Your task to perform on an android device: How much does a 3 bedroom apartment rent for in Denver? Image 0: 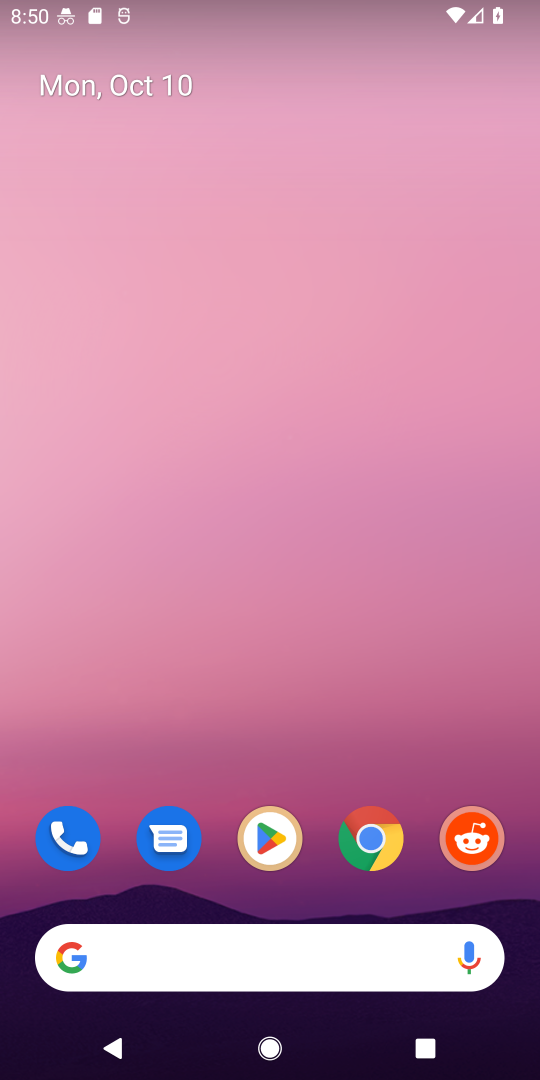
Step 0: click (372, 839)
Your task to perform on an android device: How much does a 3 bedroom apartment rent for in Denver? Image 1: 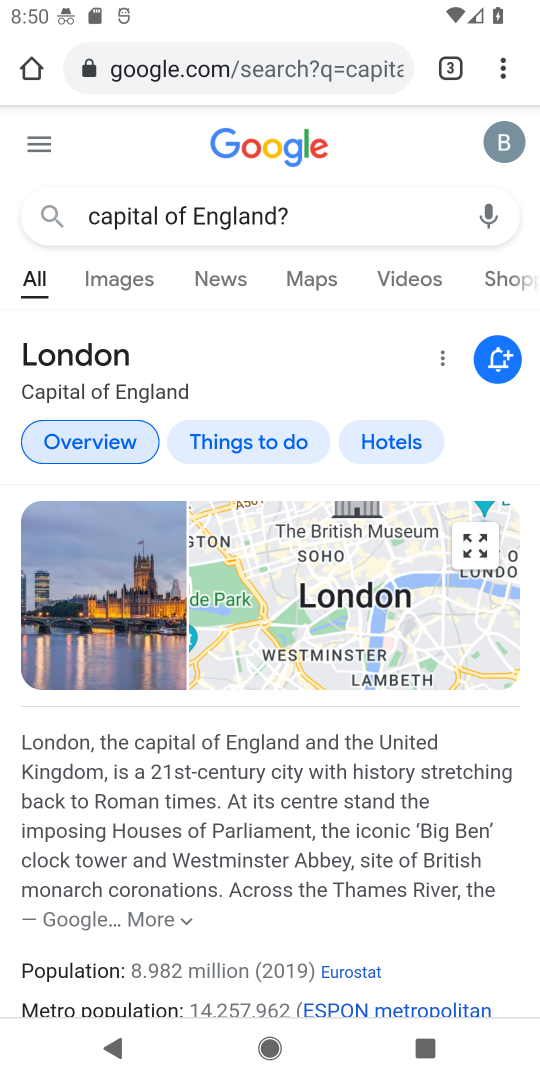
Step 1: click (246, 45)
Your task to perform on an android device: How much does a 3 bedroom apartment rent for in Denver? Image 2: 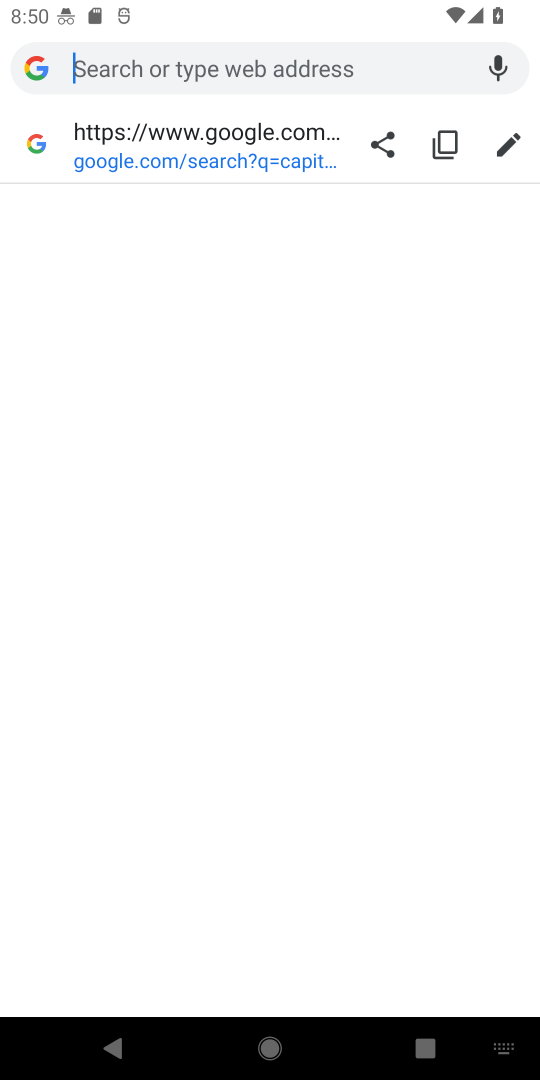
Step 2: type "How much does a 3 bedroom apartment rent for in Denver?"
Your task to perform on an android device: How much does a 3 bedroom apartment rent for in Denver? Image 3: 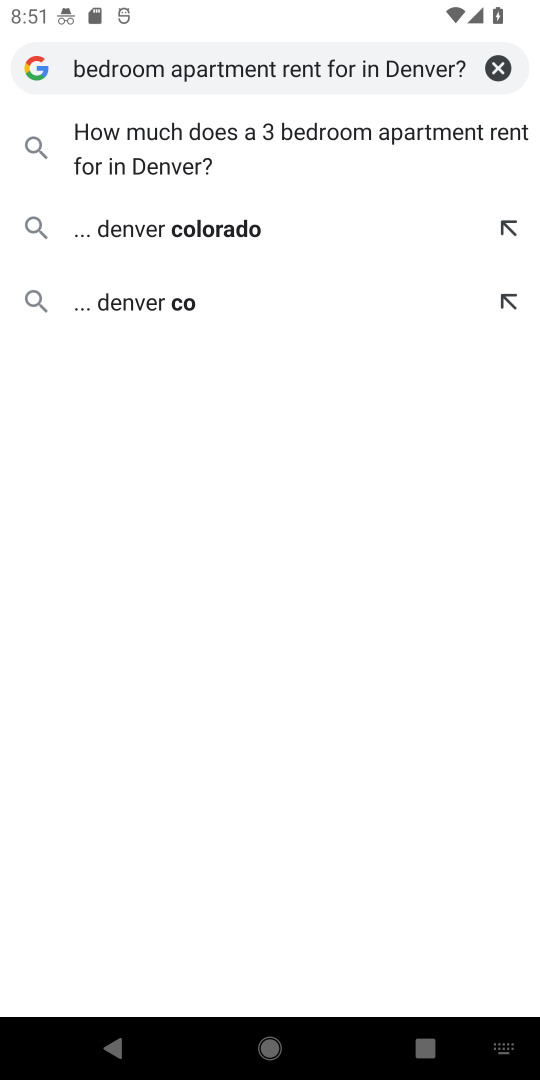
Step 3: click (165, 130)
Your task to perform on an android device: How much does a 3 bedroom apartment rent for in Denver? Image 4: 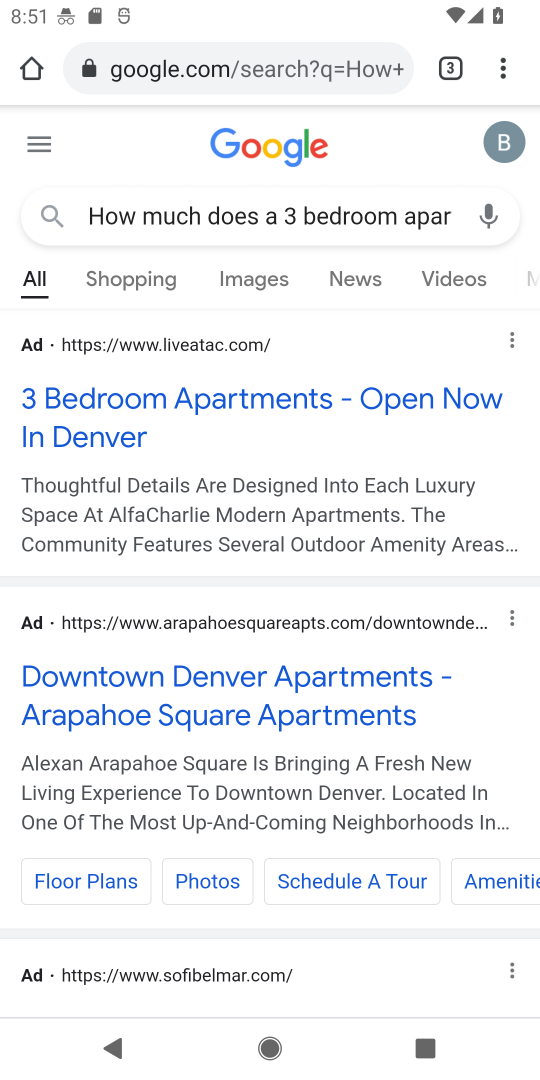
Step 4: click (105, 411)
Your task to perform on an android device: How much does a 3 bedroom apartment rent for in Denver? Image 5: 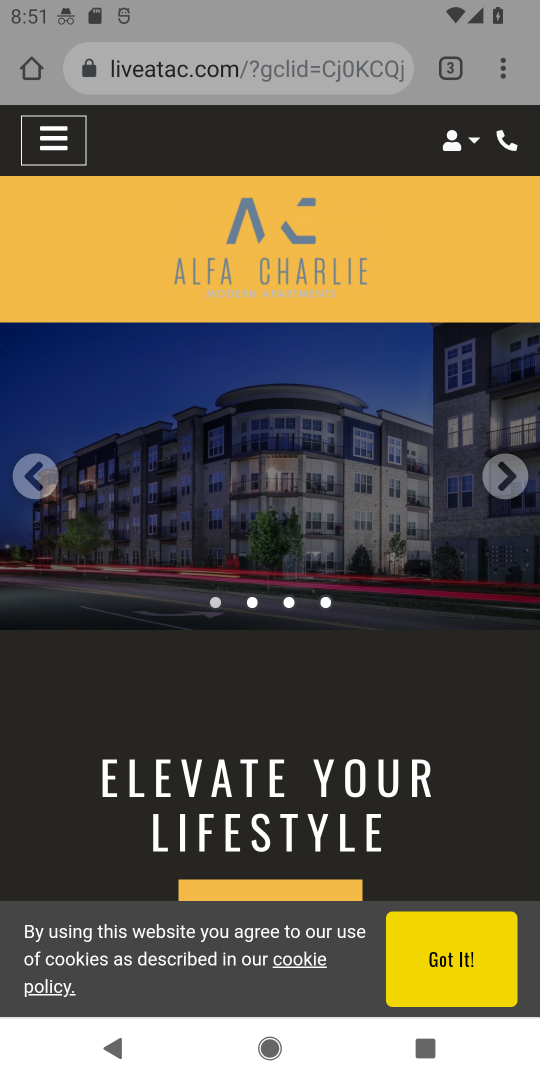
Step 5: click (434, 959)
Your task to perform on an android device: How much does a 3 bedroom apartment rent for in Denver? Image 6: 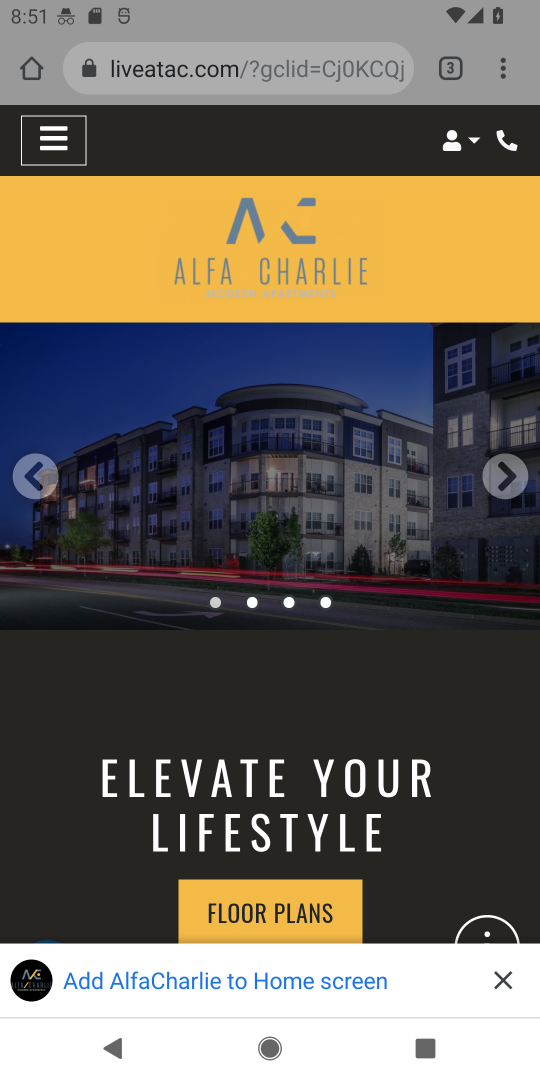
Step 6: click (501, 978)
Your task to perform on an android device: How much does a 3 bedroom apartment rent for in Denver? Image 7: 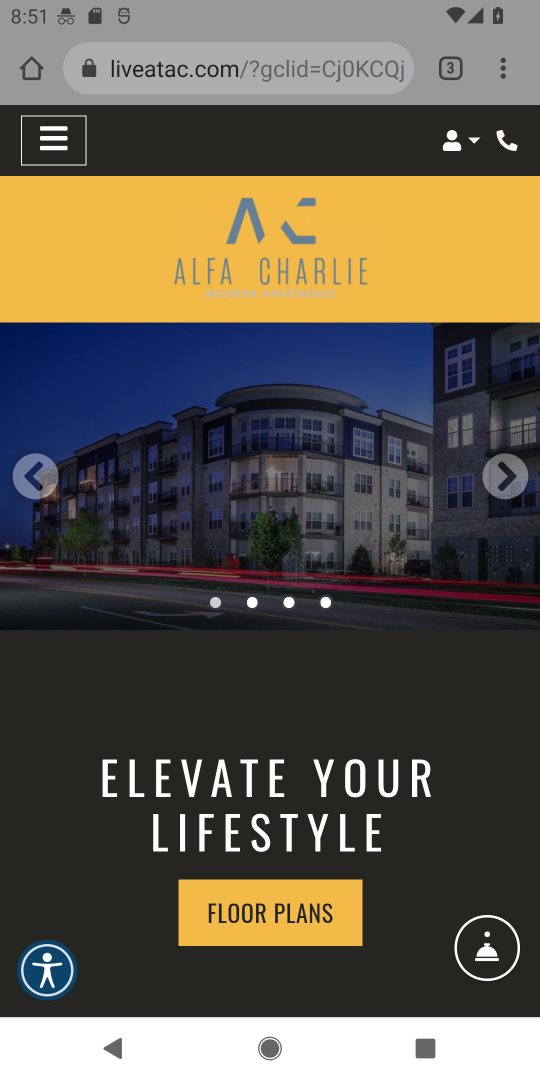
Step 7: task complete